Your task to perform on an android device: add a label to a message in the gmail app Image 0: 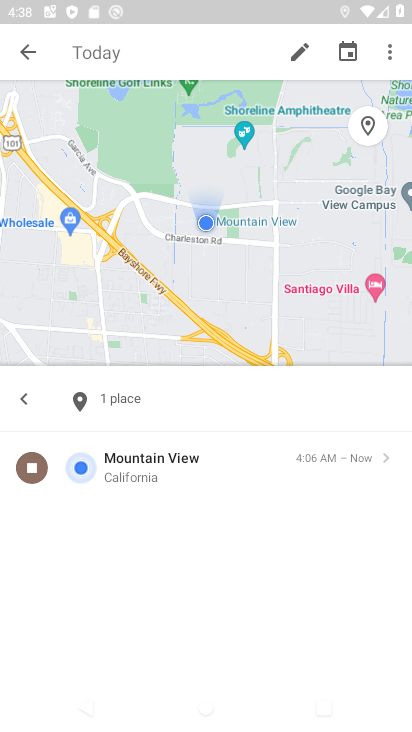
Step 0: click (31, 52)
Your task to perform on an android device: add a label to a message in the gmail app Image 1: 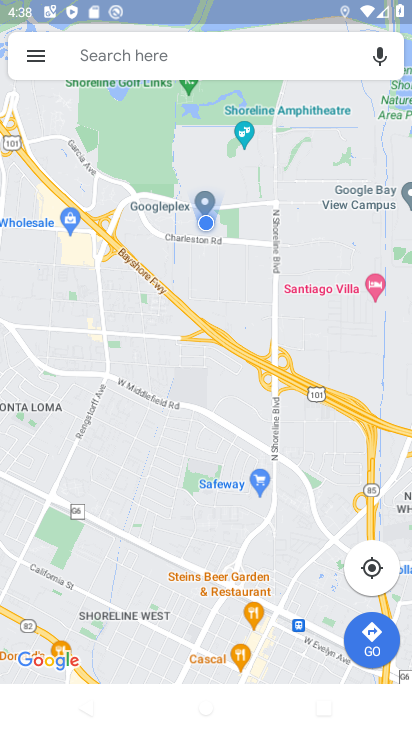
Step 1: press back button
Your task to perform on an android device: add a label to a message in the gmail app Image 2: 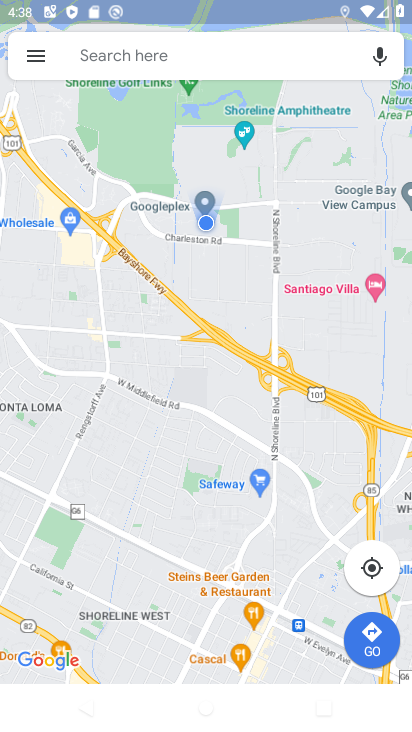
Step 2: press back button
Your task to perform on an android device: add a label to a message in the gmail app Image 3: 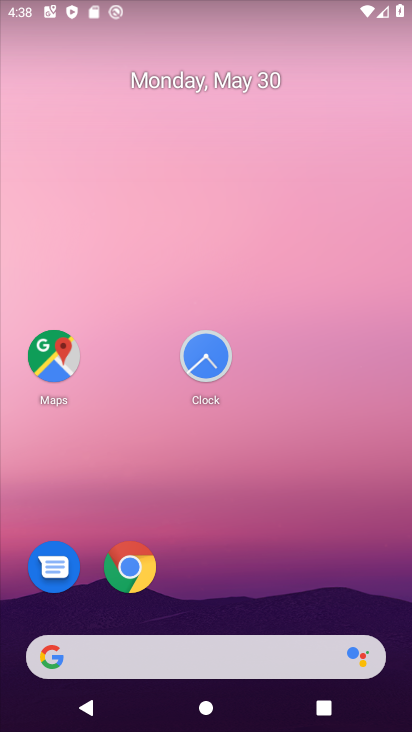
Step 3: drag from (228, 593) to (179, 84)
Your task to perform on an android device: add a label to a message in the gmail app Image 4: 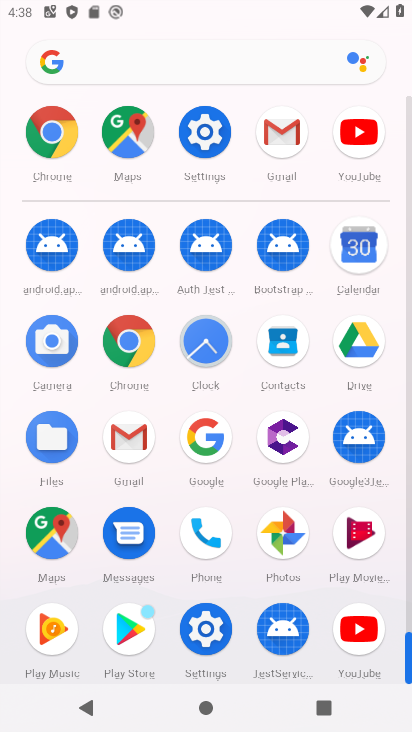
Step 4: click (131, 444)
Your task to perform on an android device: add a label to a message in the gmail app Image 5: 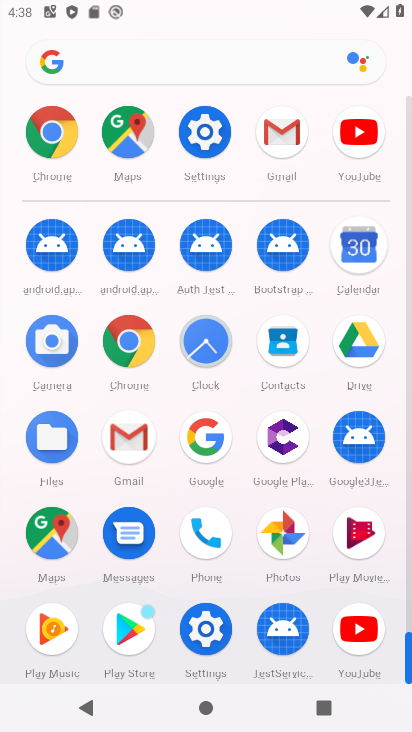
Step 5: click (130, 442)
Your task to perform on an android device: add a label to a message in the gmail app Image 6: 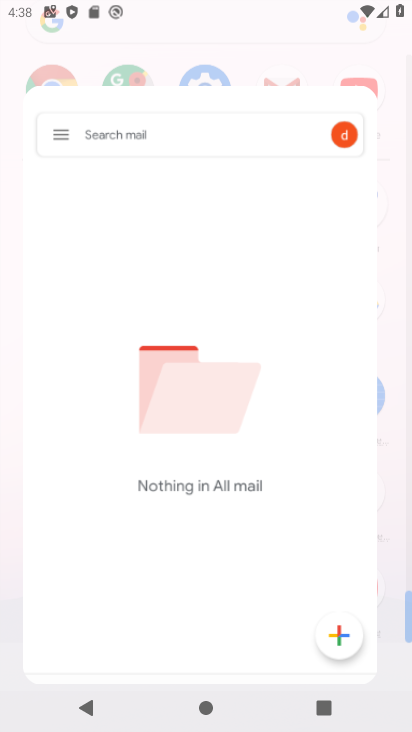
Step 6: click (128, 442)
Your task to perform on an android device: add a label to a message in the gmail app Image 7: 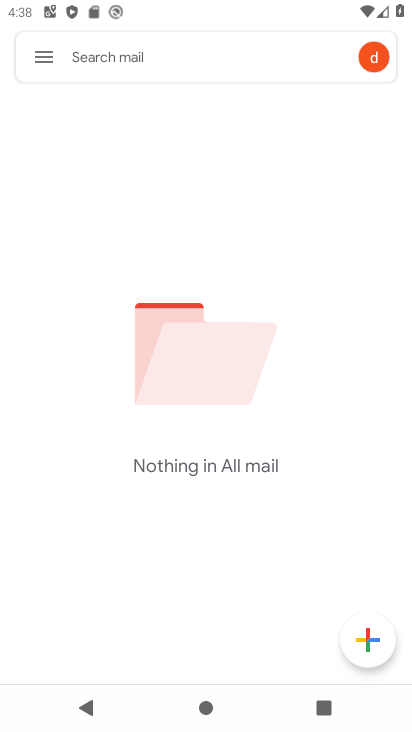
Step 7: click (126, 444)
Your task to perform on an android device: add a label to a message in the gmail app Image 8: 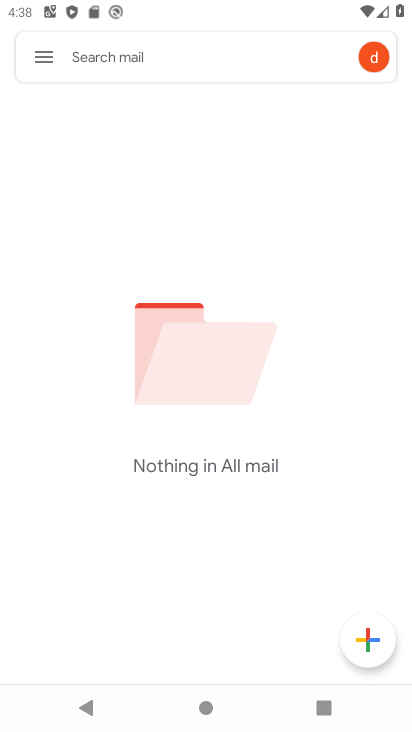
Step 8: click (44, 57)
Your task to perform on an android device: add a label to a message in the gmail app Image 9: 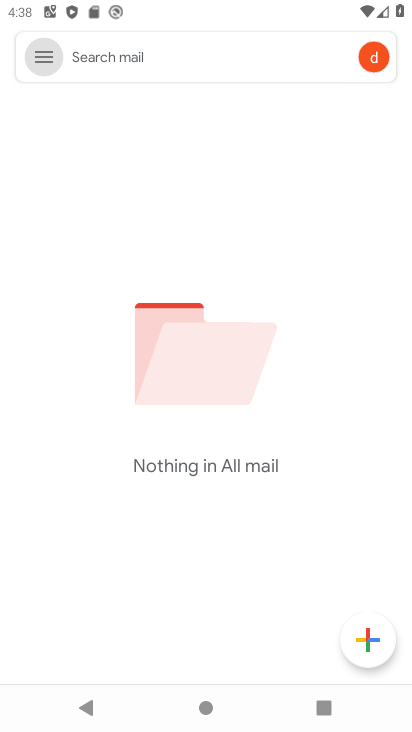
Step 9: click (44, 57)
Your task to perform on an android device: add a label to a message in the gmail app Image 10: 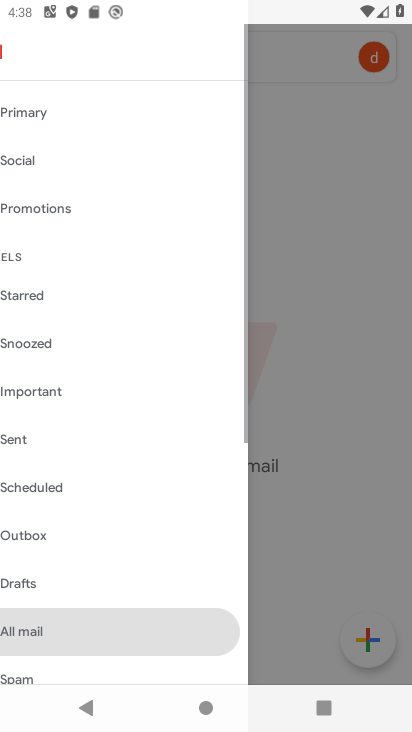
Step 10: click (44, 66)
Your task to perform on an android device: add a label to a message in the gmail app Image 11: 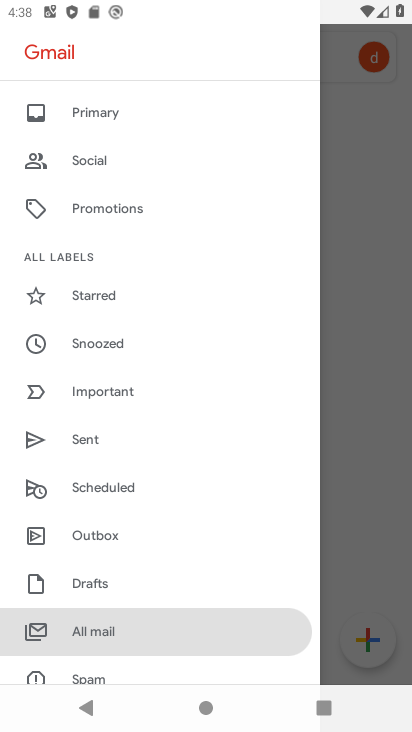
Step 11: drag from (90, 541) to (56, 185)
Your task to perform on an android device: add a label to a message in the gmail app Image 12: 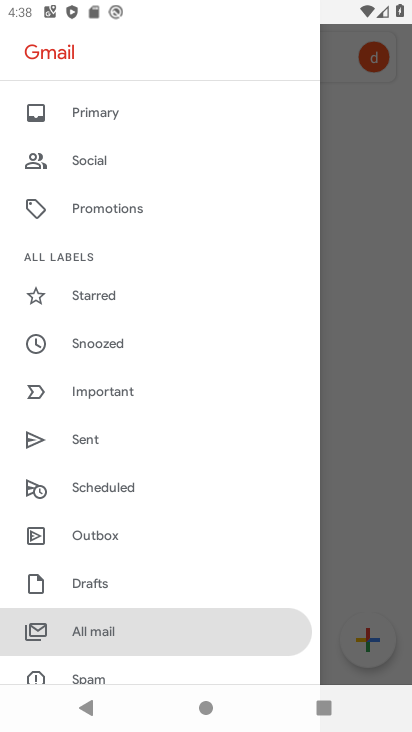
Step 12: drag from (97, 469) to (87, 221)
Your task to perform on an android device: add a label to a message in the gmail app Image 13: 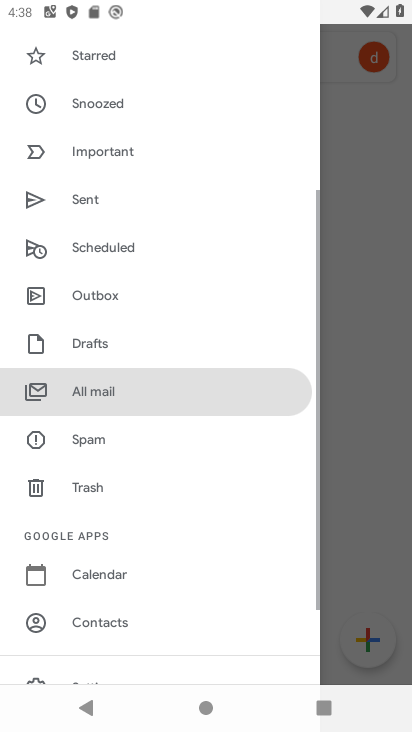
Step 13: drag from (104, 513) to (126, 197)
Your task to perform on an android device: add a label to a message in the gmail app Image 14: 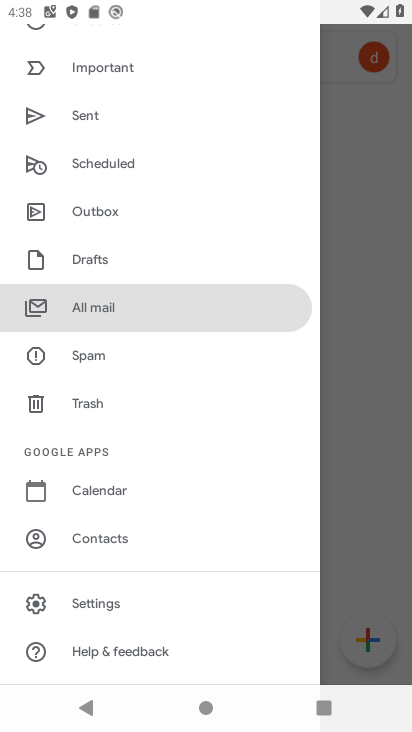
Step 14: click (122, 305)
Your task to perform on an android device: add a label to a message in the gmail app Image 15: 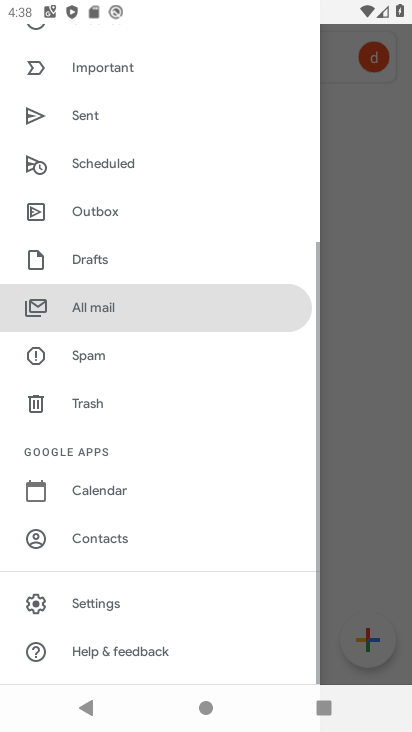
Step 15: click (122, 305)
Your task to perform on an android device: add a label to a message in the gmail app Image 16: 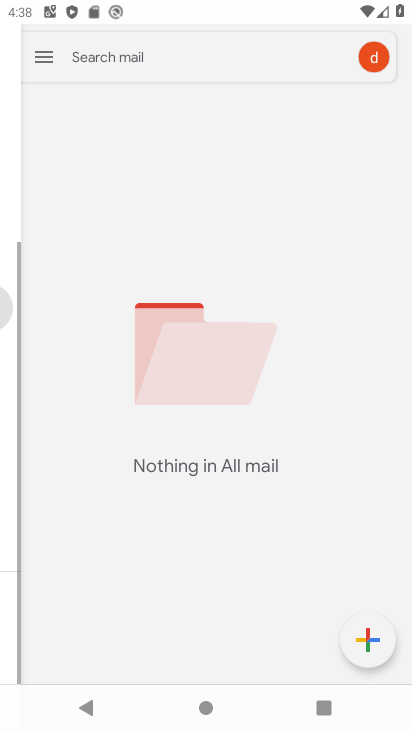
Step 16: click (122, 305)
Your task to perform on an android device: add a label to a message in the gmail app Image 17: 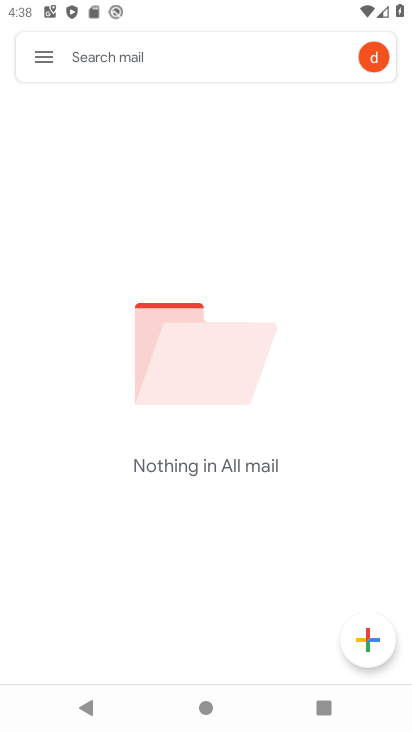
Step 17: click (111, 306)
Your task to perform on an android device: add a label to a message in the gmail app Image 18: 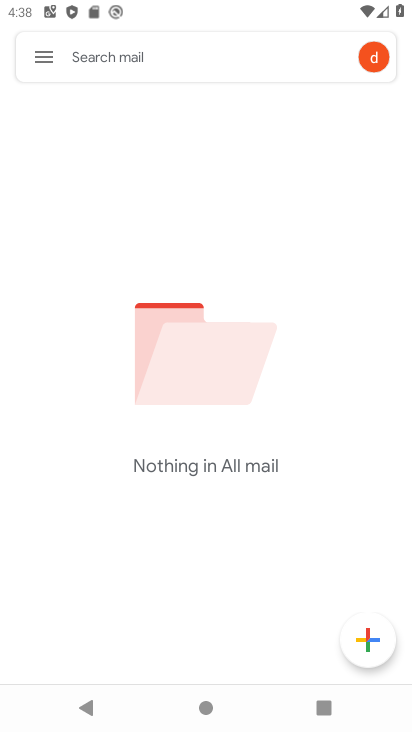
Step 18: click (110, 311)
Your task to perform on an android device: add a label to a message in the gmail app Image 19: 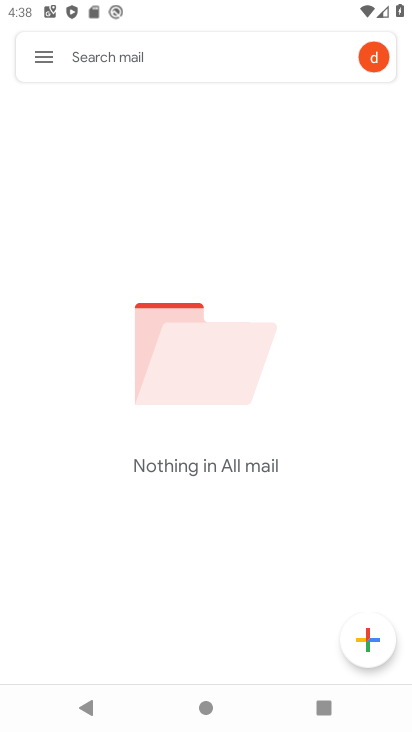
Step 19: task complete